Your task to perform on an android device: Go to privacy settings Image 0: 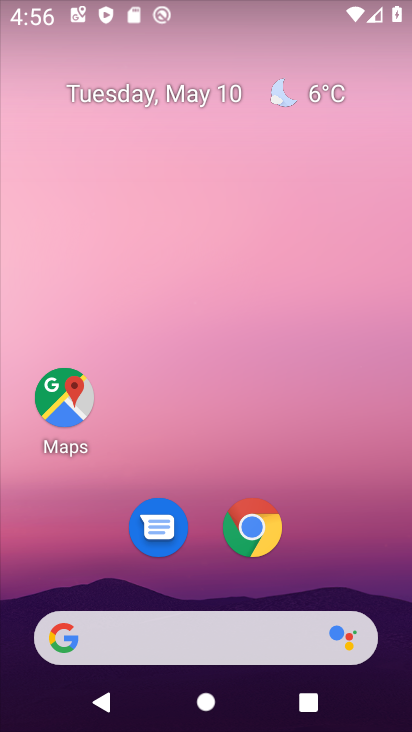
Step 0: click (268, 541)
Your task to perform on an android device: Go to privacy settings Image 1: 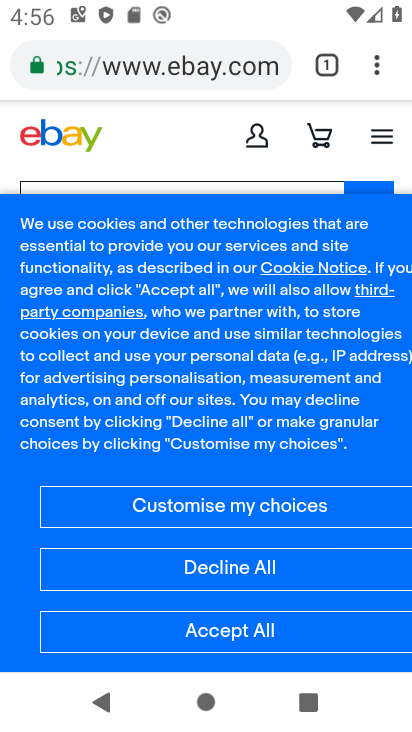
Step 1: click (379, 53)
Your task to perform on an android device: Go to privacy settings Image 2: 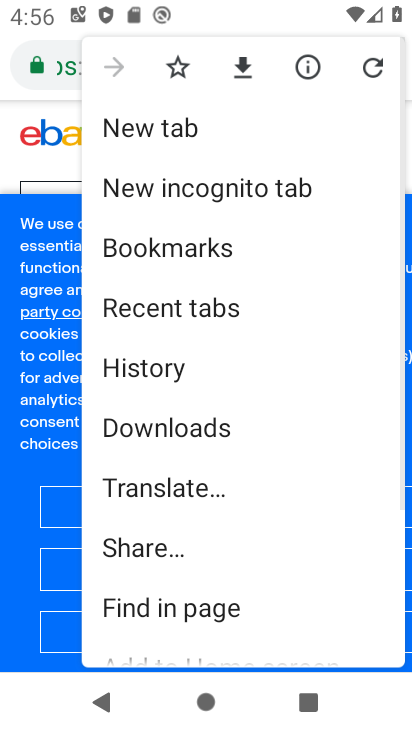
Step 2: drag from (203, 570) to (264, 176)
Your task to perform on an android device: Go to privacy settings Image 3: 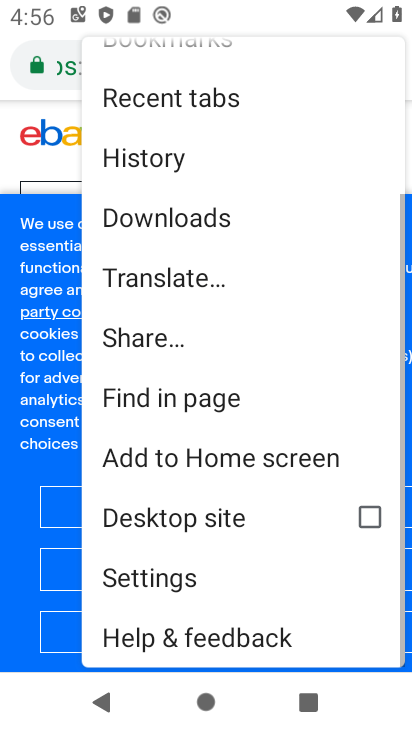
Step 3: click (218, 560)
Your task to perform on an android device: Go to privacy settings Image 4: 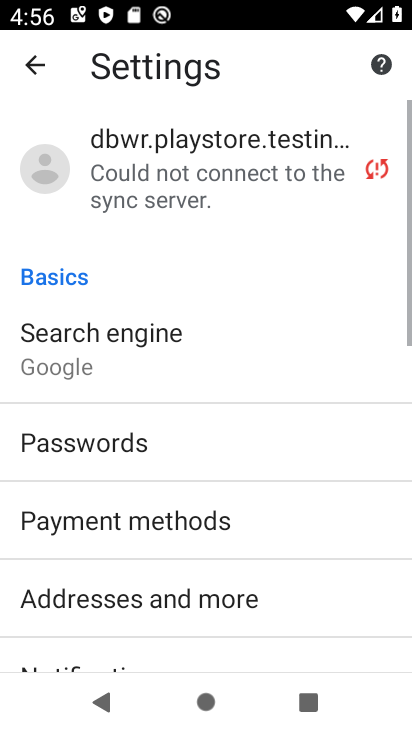
Step 4: drag from (243, 569) to (279, 105)
Your task to perform on an android device: Go to privacy settings Image 5: 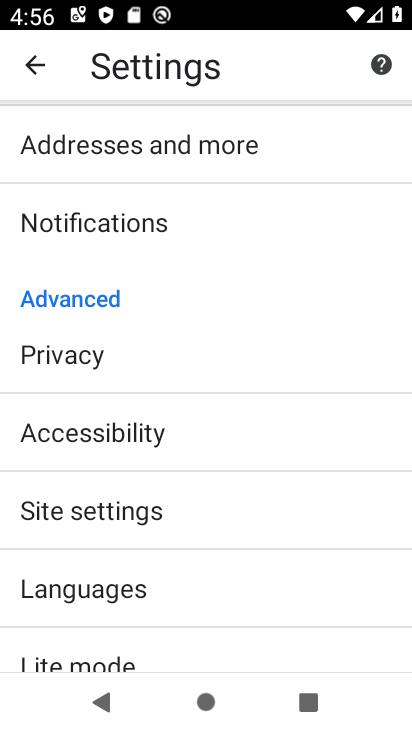
Step 5: click (106, 353)
Your task to perform on an android device: Go to privacy settings Image 6: 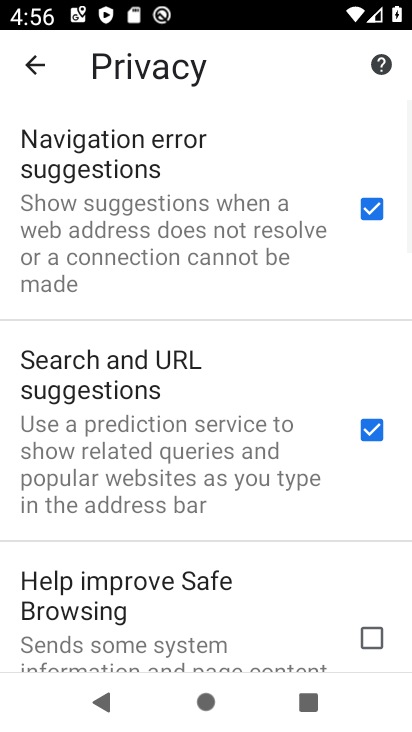
Step 6: task complete